Your task to perform on an android device: set default search engine in the chrome app Image 0: 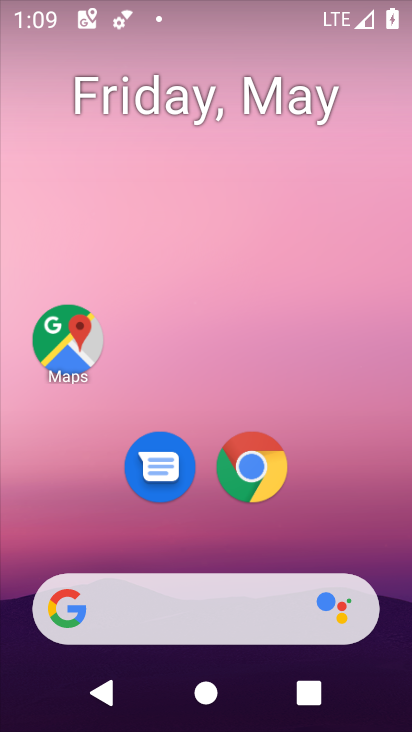
Step 0: drag from (321, 521) to (363, 0)
Your task to perform on an android device: set default search engine in the chrome app Image 1: 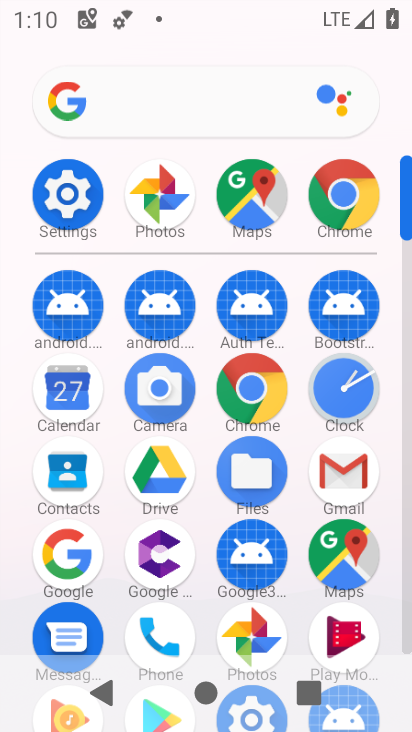
Step 1: click (361, 208)
Your task to perform on an android device: set default search engine in the chrome app Image 2: 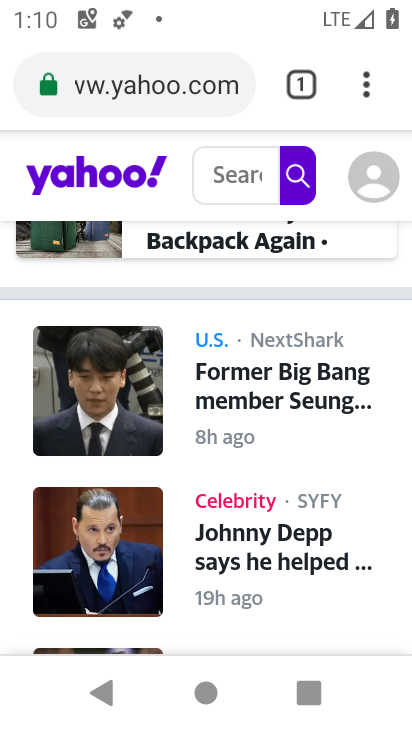
Step 2: drag from (296, 254) to (315, 704)
Your task to perform on an android device: set default search engine in the chrome app Image 3: 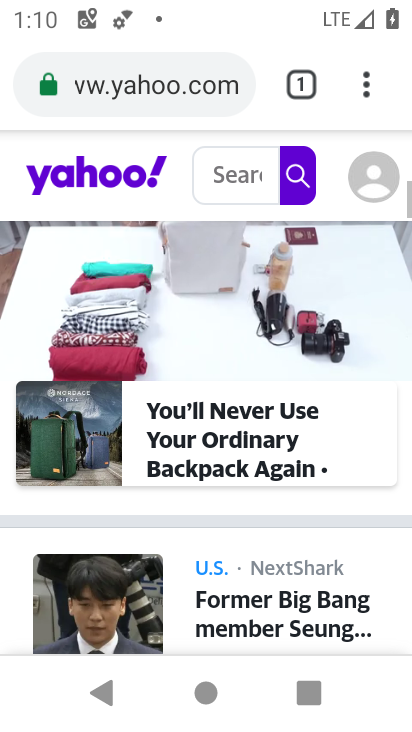
Step 3: drag from (243, 376) to (241, 609)
Your task to perform on an android device: set default search engine in the chrome app Image 4: 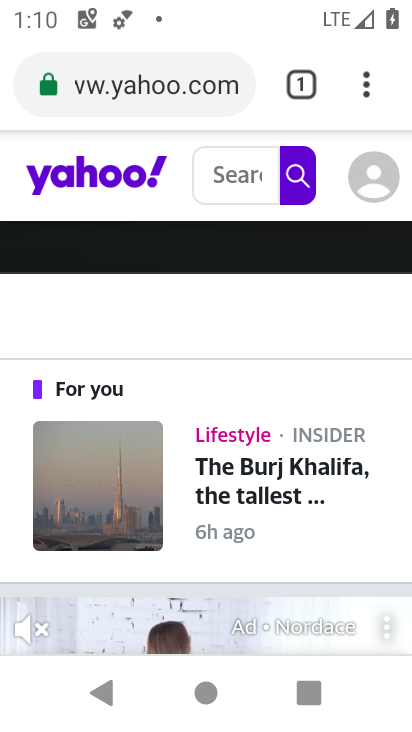
Step 4: drag from (257, 477) to (272, 252)
Your task to perform on an android device: set default search engine in the chrome app Image 5: 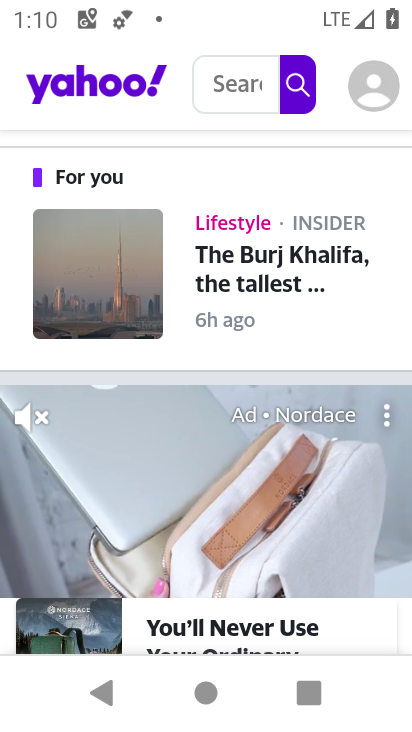
Step 5: drag from (272, 552) to (308, 219)
Your task to perform on an android device: set default search engine in the chrome app Image 6: 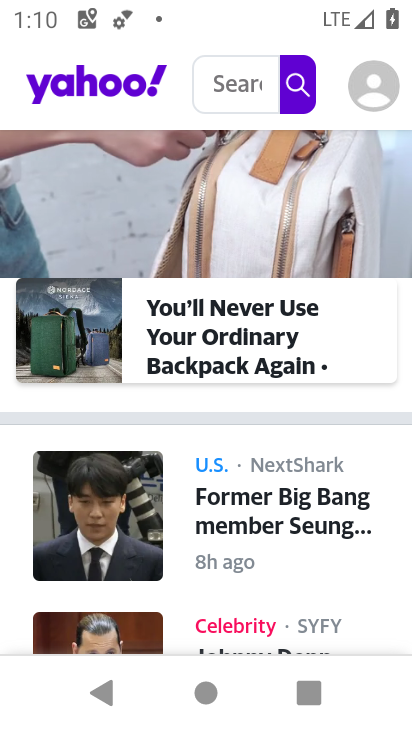
Step 6: drag from (311, 242) to (325, 632)
Your task to perform on an android device: set default search engine in the chrome app Image 7: 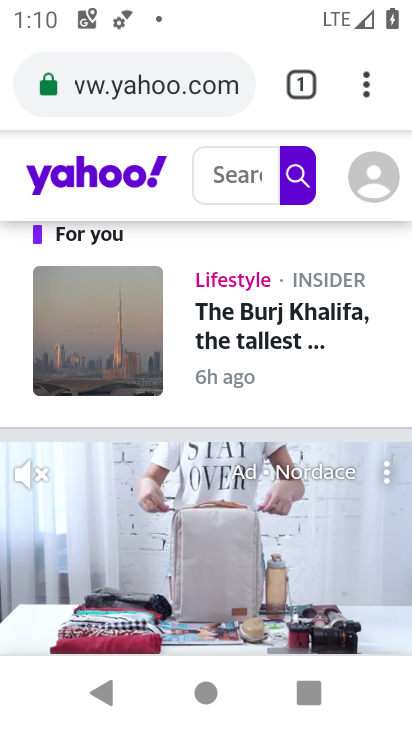
Step 7: drag from (330, 308) to (336, 651)
Your task to perform on an android device: set default search engine in the chrome app Image 8: 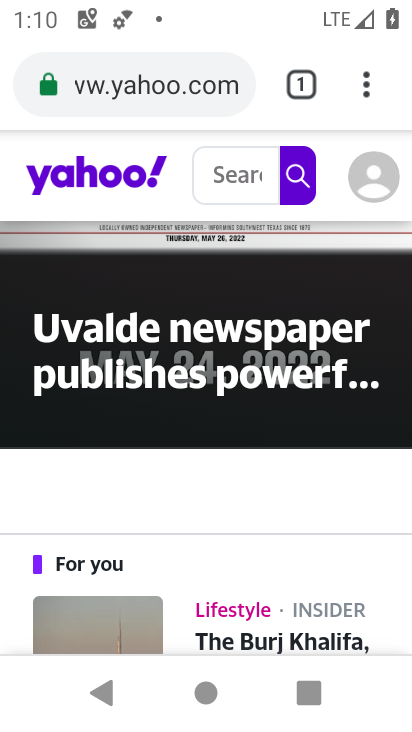
Step 8: drag from (370, 83) to (95, 529)
Your task to perform on an android device: set default search engine in the chrome app Image 9: 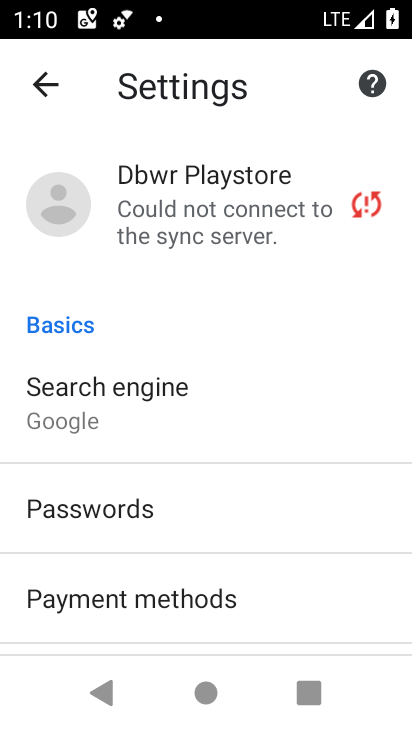
Step 9: click (119, 391)
Your task to perform on an android device: set default search engine in the chrome app Image 10: 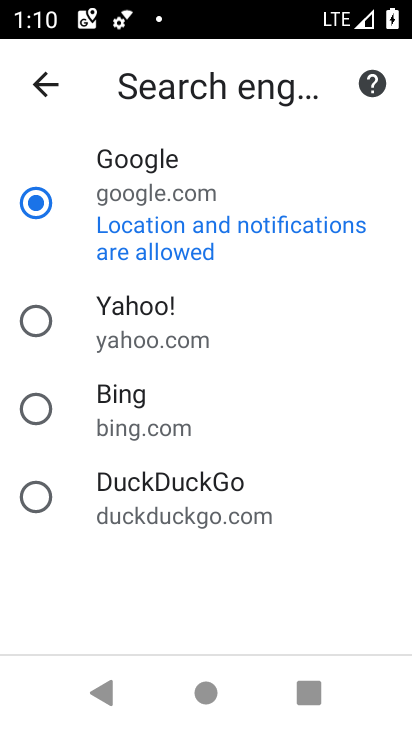
Step 10: task complete